Your task to perform on an android device: clear history in the chrome app Image 0: 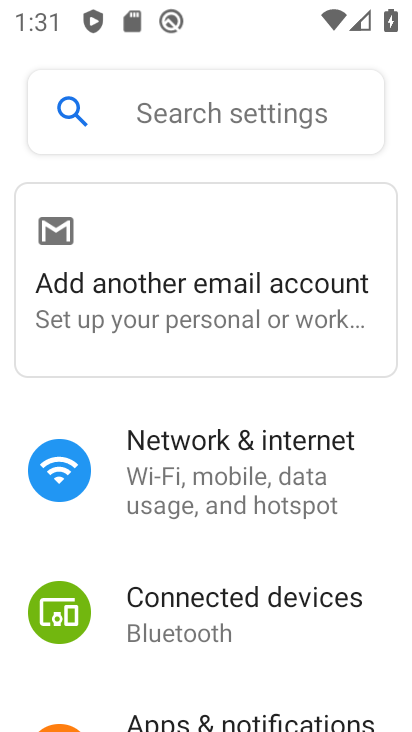
Step 0: press home button
Your task to perform on an android device: clear history in the chrome app Image 1: 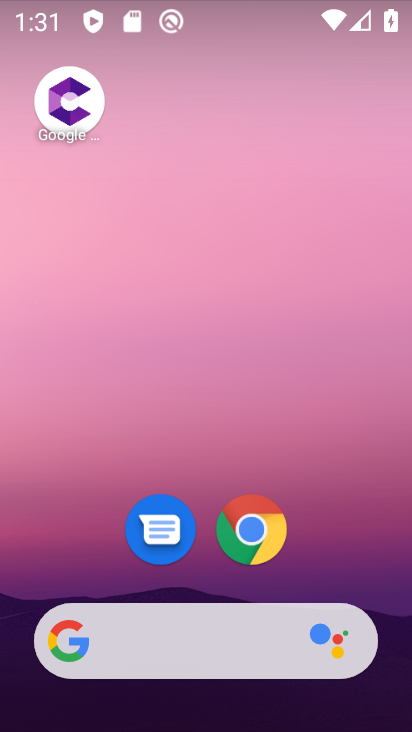
Step 1: click (256, 537)
Your task to perform on an android device: clear history in the chrome app Image 2: 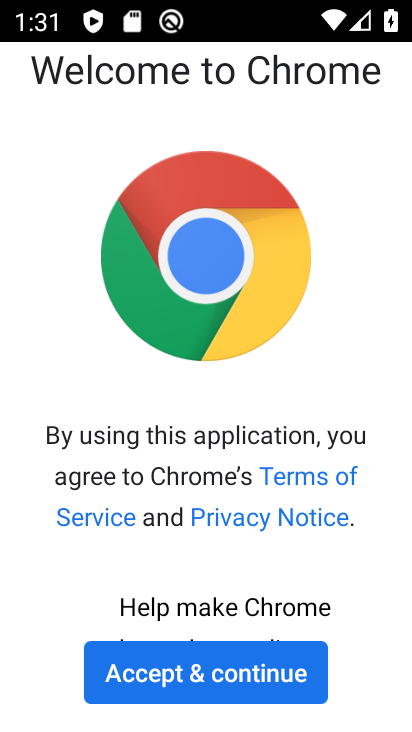
Step 2: click (183, 678)
Your task to perform on an android device: clear history in the chrome app Image 3: 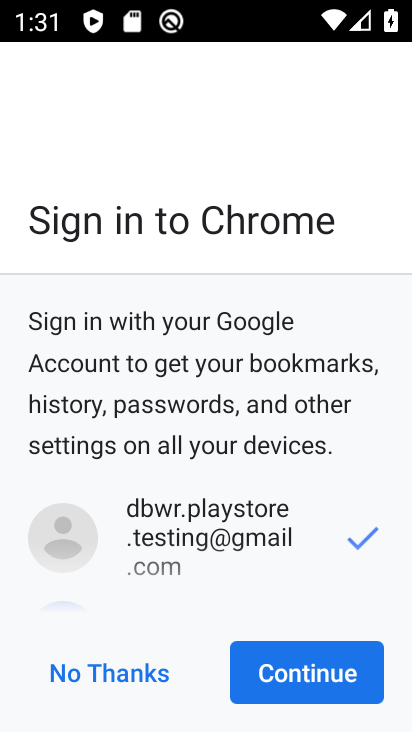
Step 3: click (267, 677)
Your task to perform on an android device: clear history in the chrome app Image 4: 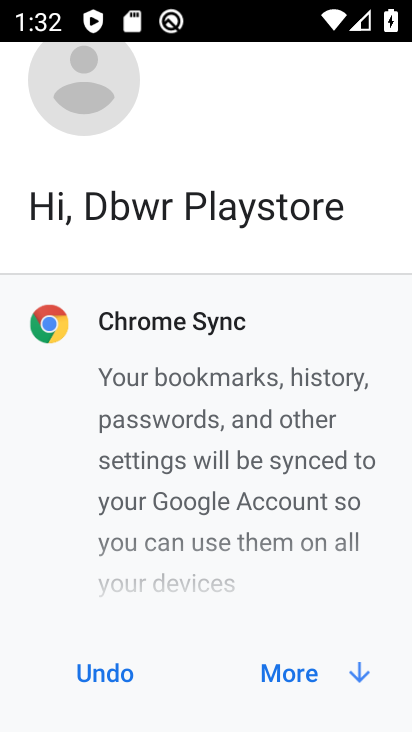
Step 4: click (267, 677)
Your task to perform on an android device: clear history in the chrome app Image 5: 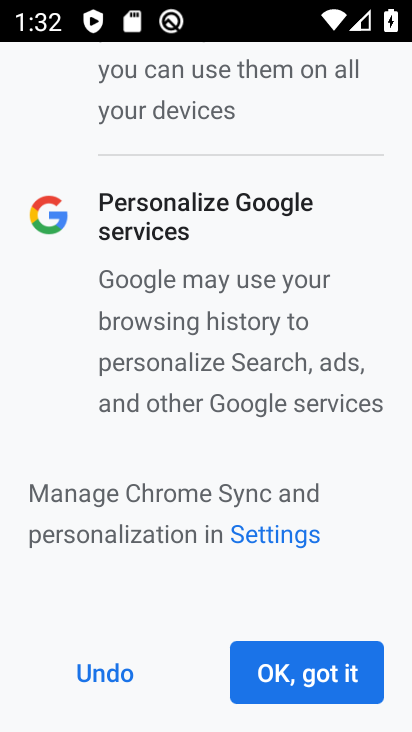
Step 5: click (286, 674)
Your task to perform on an android device: clear history in the chrome app Image 6: 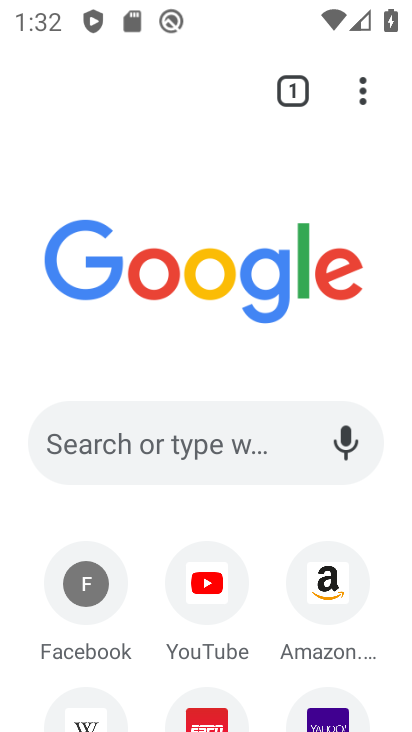
Step 6: click (358, 95)
Your task to perform on an android device: clear history in the chrome app Image 7: 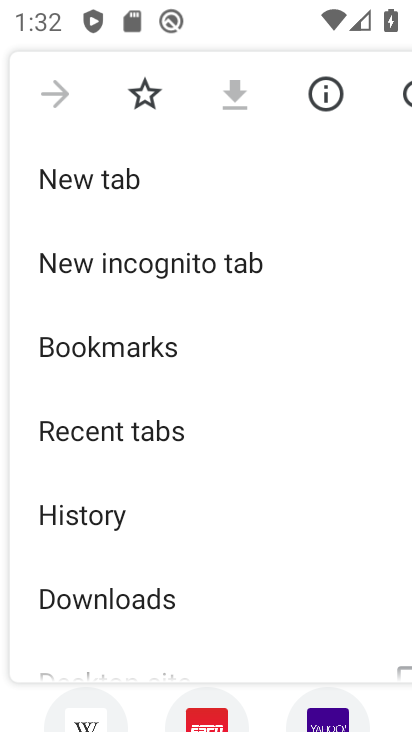
Step 7: drag from (301, 557) to (321, 120)
Your task to perform on an android device: clear history in the chrome app Image 8: 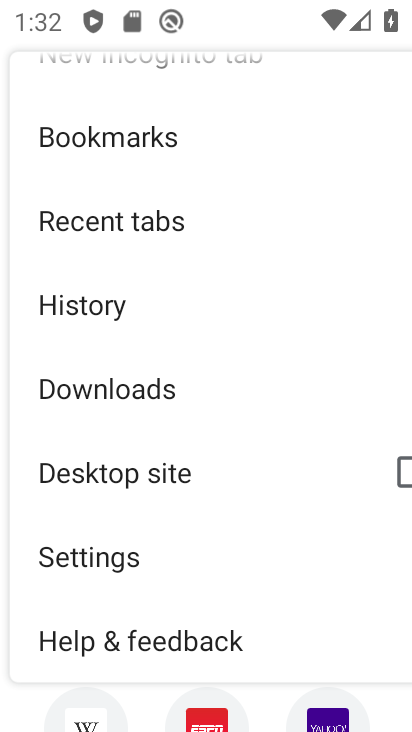
Step 8: click (104, 302)
Your task to perform on an android device: clear history in the chrome app Image 9: 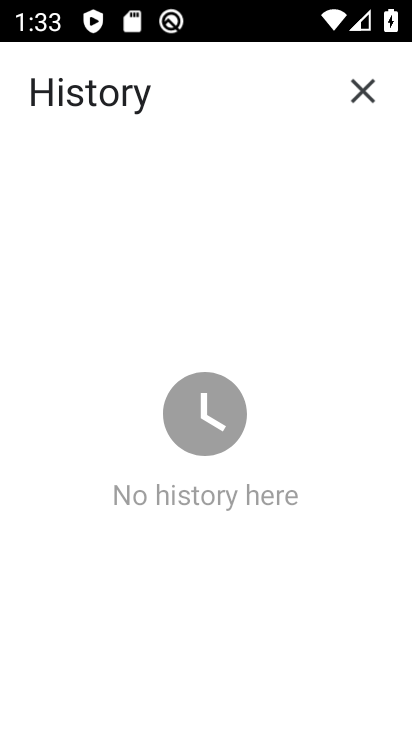
Step 9: task complete